Your task to perform on an android device: Search for vegetarian restaurants on Maps Image 0: 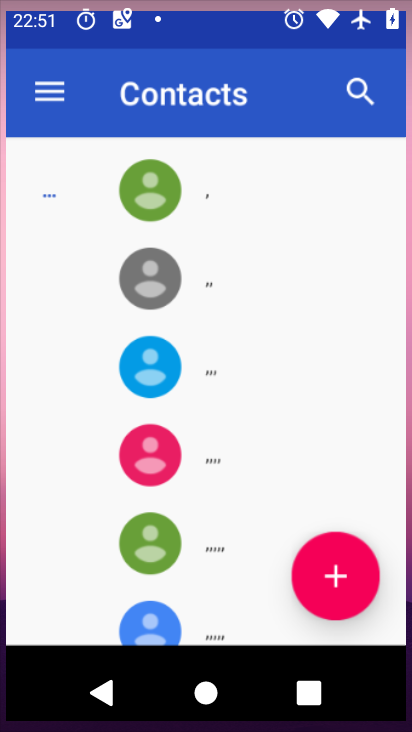
Step 0: drag from (238, 524) to (243, 131)
Your task to perform on an android device: Search for vegetarian restaurants on Maps Image 1: 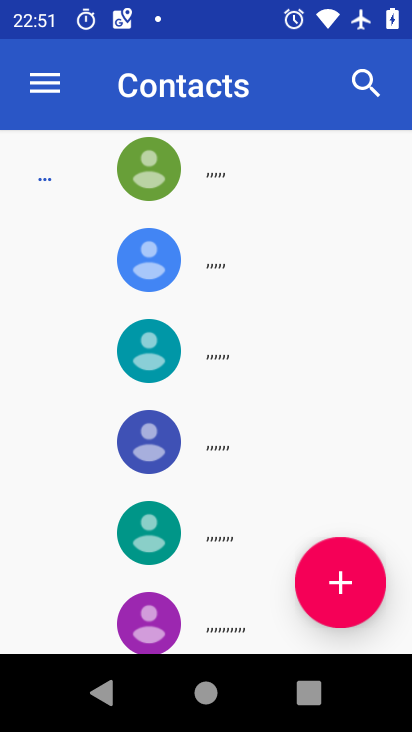
Step 1: press home button
Your task to perform on an android device: Search for vegetarian restaurants on Maps Image 2: 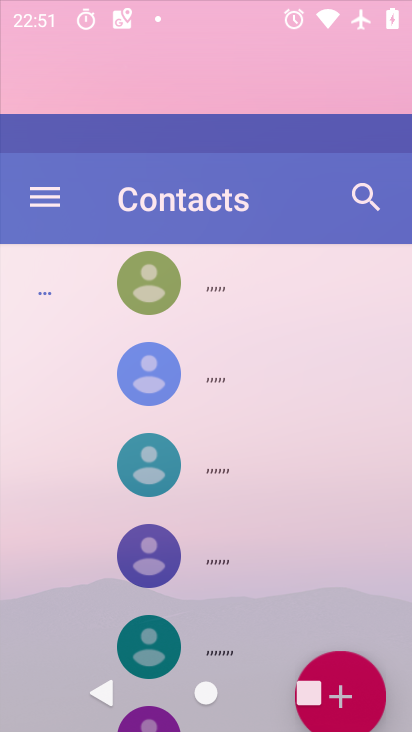
Step 2: drag from (136, 469) to (172, 5)
Your task to perform on an android device: Search for vegetarian restaurants on Maps Image 3: 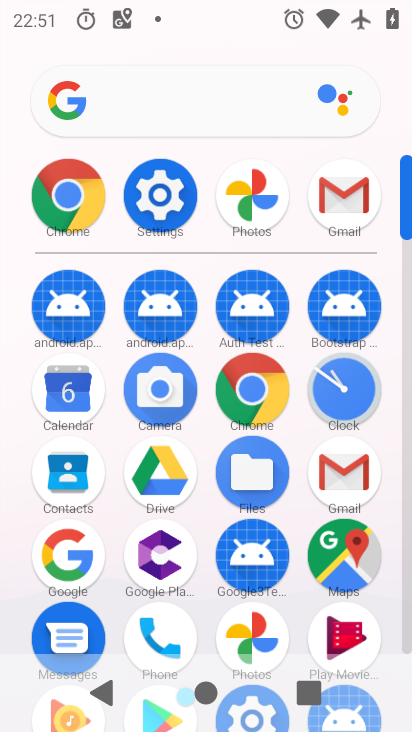
Step 3: click (341, 546)
Your task to perform on an android device: Search for vegetarian restaurants on Maps Image 4: 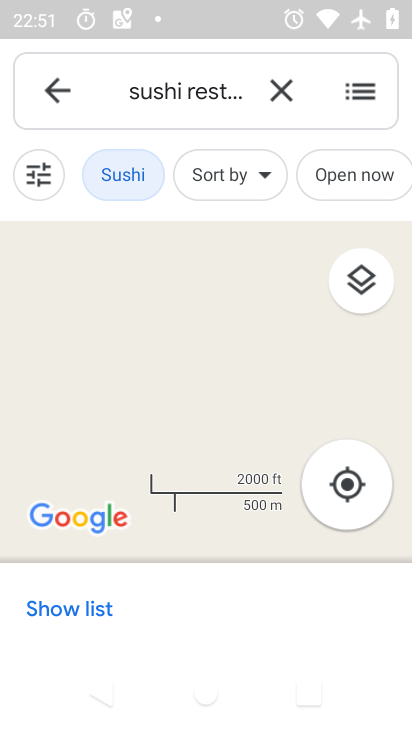
Step 4: click (285, 97)
Your task to perform on an android device: Search for vegetarian restaurants on Maps Image 5: 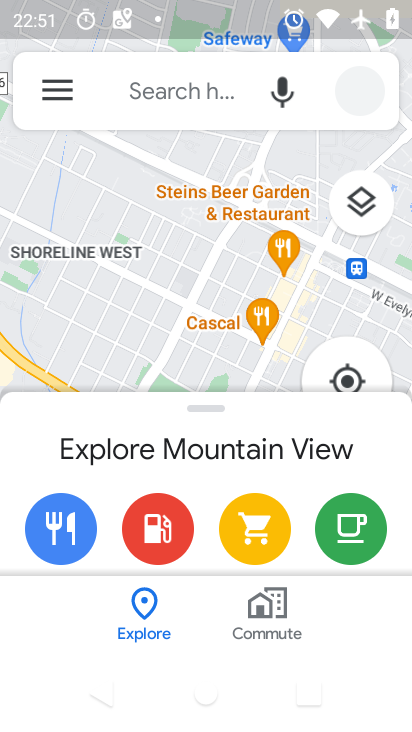
Step 5: click (123, 102)
Your task to perform on an android device: Search for vegetarian restaurants on Maps Image 6: 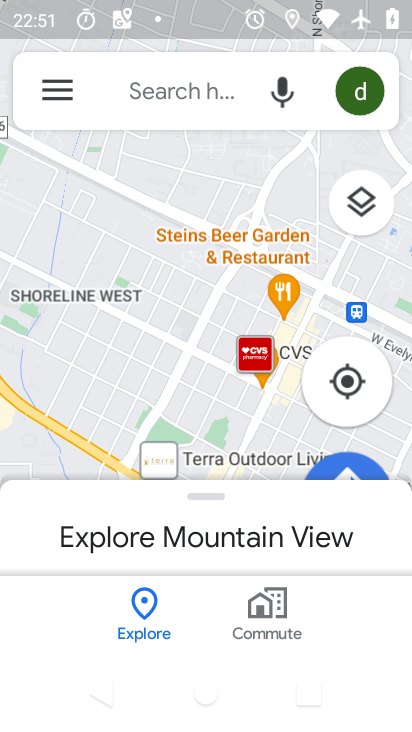
Step 6: click (154, 89)
Your task to perform on an android device: Search for vegetarian restaurants on Maps Image 7: 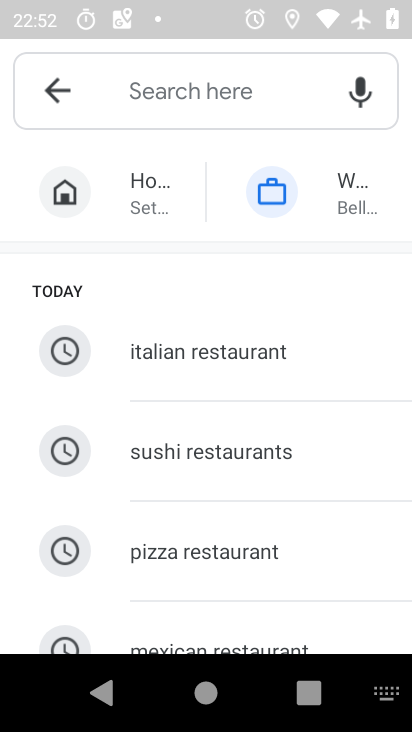
Step 7: drag from (211, 530) to (217, 215)
Your task to perform on an android device: Search for vegetarian restaurants on Maps Image 8: 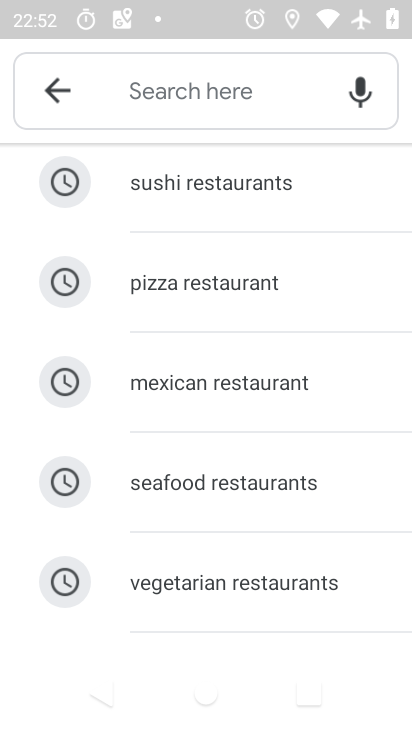
Step 8: click (138, 594)
Your task to perform on an android device: Search for vegetarian restaurants on Maps Image 9: 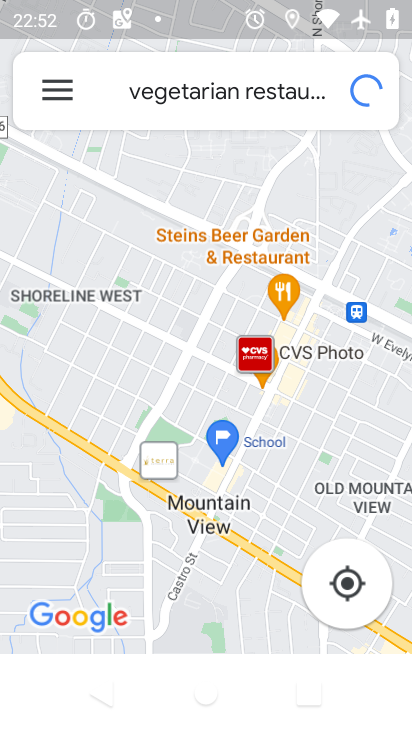
Step 9: task complete